Your task to perform on an android device: open app "Grab" (install if not already installed) Image 0: 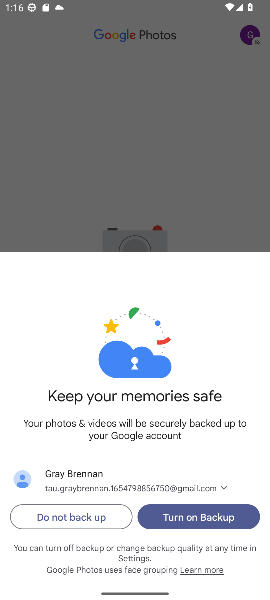
Step 0: press home button
Your task to perform on an android device: open app "Grab" (install if not already installed) Image 1: 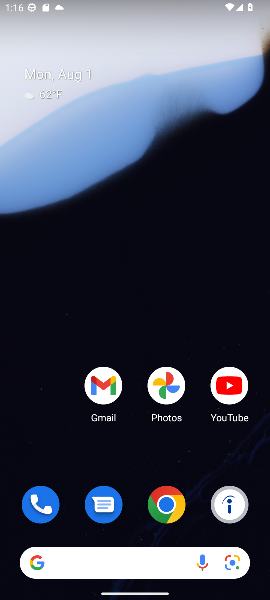
Step 1: drag from (130, 554) to (168, 42)
Your task to perform on an android device: open app "Grab" (install if not already installed) Image 2: 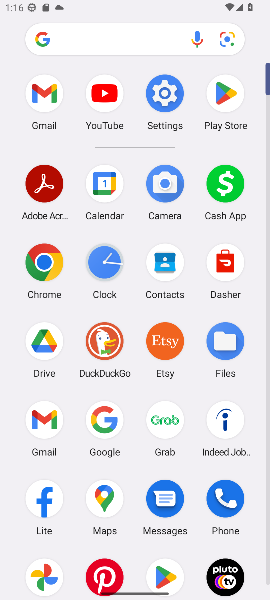
Step 2: click (229, 108)
Your task to perform on an android device: open app "Grab" (install if not already installed) Image 3: 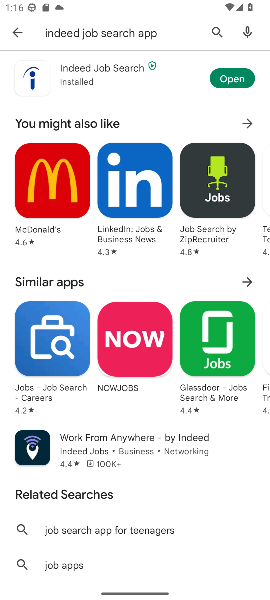
Step 3: click (217, 36)
Your task to perform on an android device: open app "Grab" (install if not already installed) Image 4: 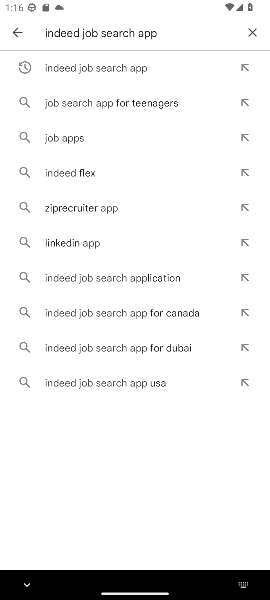
Step 4: click (247, 24)
Your task to perform on an android device: open app "Grab" (install if not already installed) Image 5: 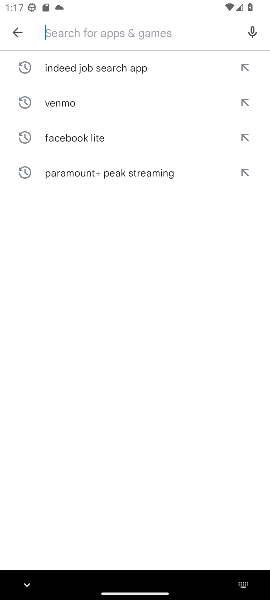
Step 5: type "grab"
Your task to perform on an android device: open app "Grab" (install if not already installed) Image 6: 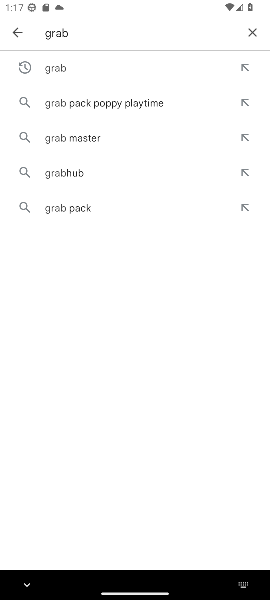
Step 6: click (64, 71)
Your task to perform on an android device: open app "Grab" (install if not already installed) Image 7: 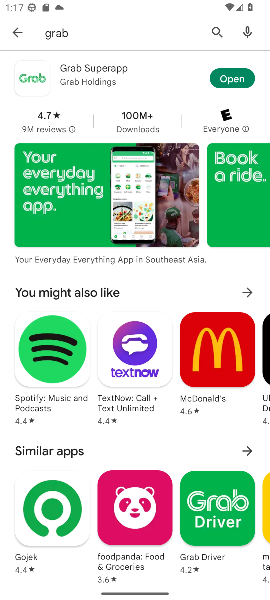
Step 7: task complete